Your task to perform on an android device: turn off wifi Image 0: 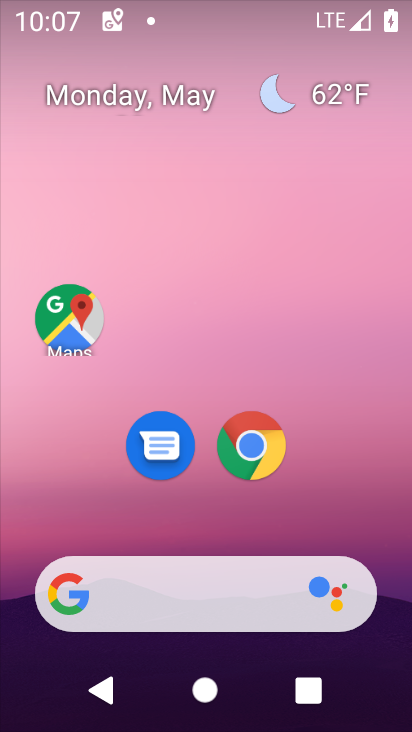
Step 0: drag from (217, 7) to (279, 576)
Your task to perform on an android device: turn off wifi Image 1: 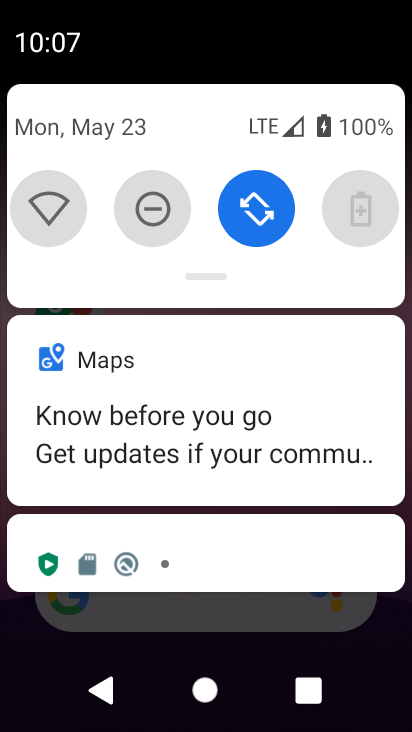
Step 1: task complete